Your task to perform on an android device: Open privacy settings Image 0: 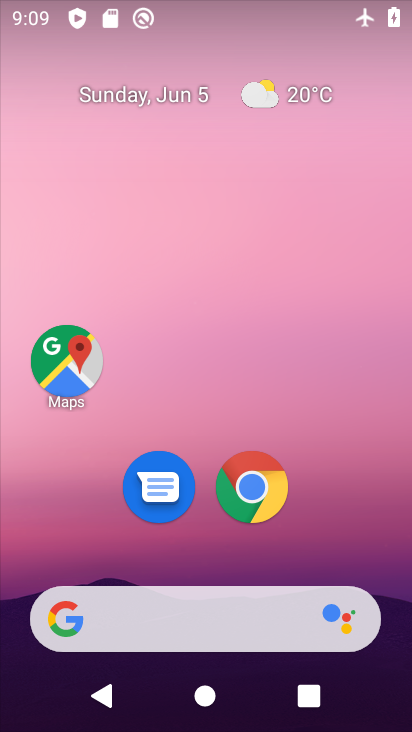
Step 0: drag from (213, 450) to (239, 301)
Your task to perform on an android device: Open privacy settings Image 1: 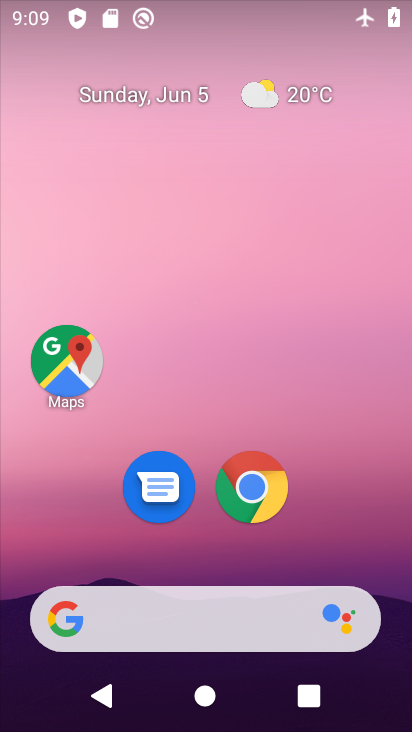
Step 1: drag from (212, 509) to (209, 306)
Your task to perform on an android device: Open privacy settings Image 2: 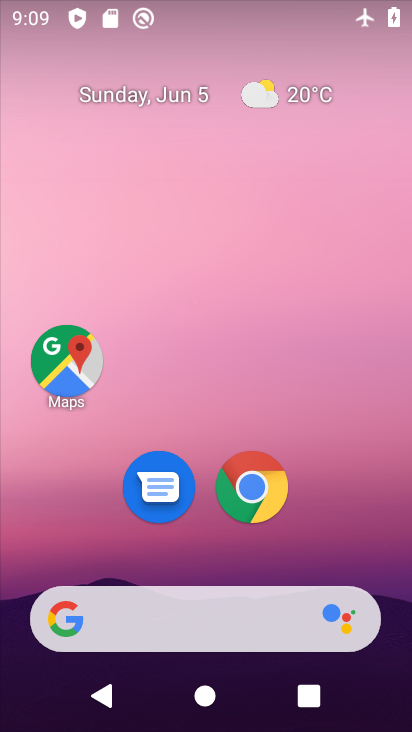
Step 2: drag from (245, 534) to (290, 184)
Your task to perform on an android device: Open privacy settings Image 3: 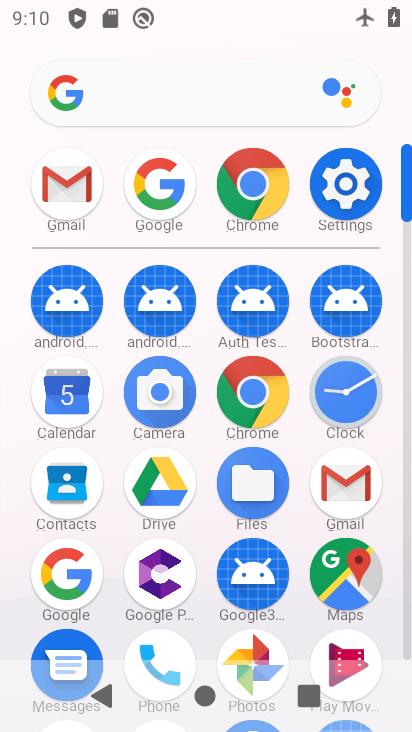
Step 3: click (356, 201)
Your task to perform on an android device: Open privacy settings Image 4: 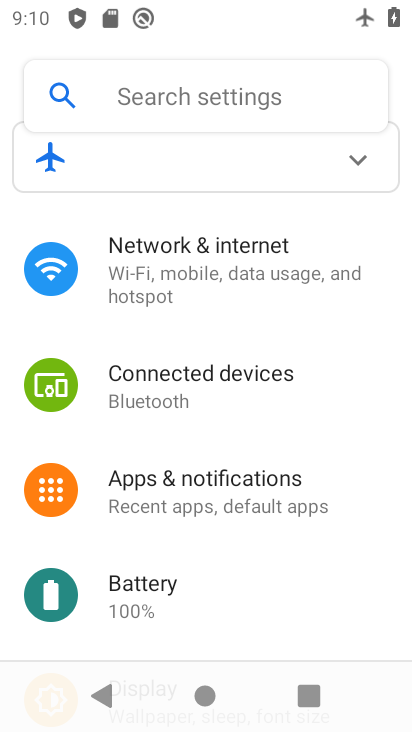
Step 4: drag from (202, 518) to (202, 397)
Your task to perform on an android device: Open privacy settings Image 5: 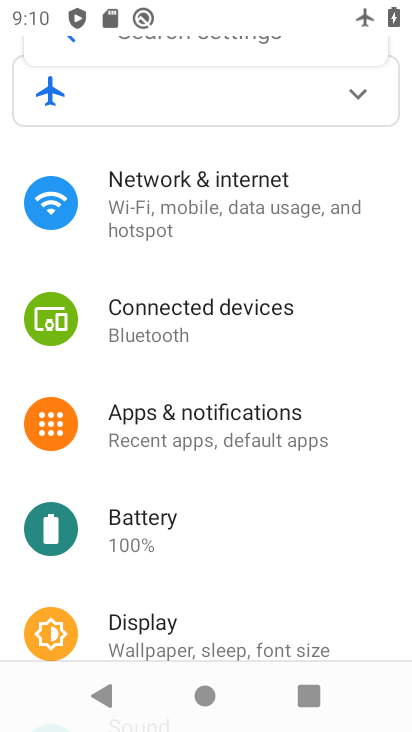
Step 5: click (156, 353)
Your task to perform on an android device: Open privacy settings Image 6: 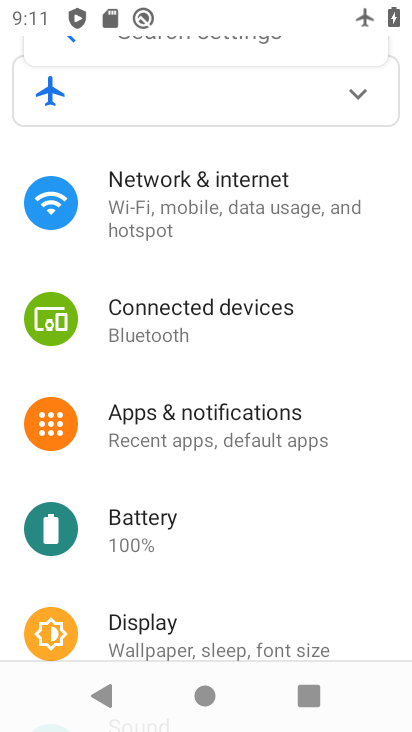
Step 6: drag from (210, 418) to (215, 330)
Your task to perform on an android device: Open privacy settings Image 7: 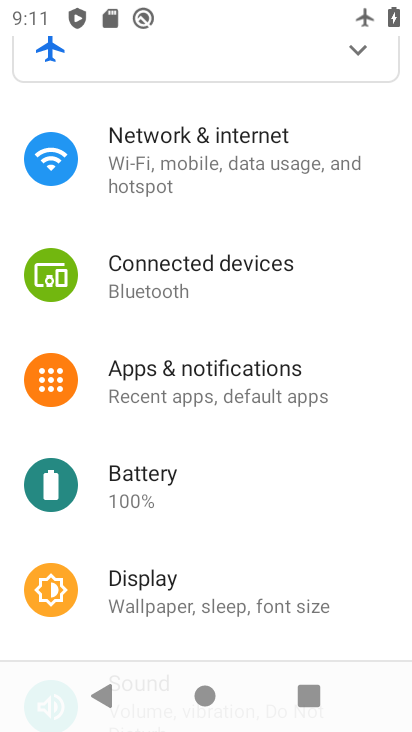
Step 7: drag from (206, 558) to (218, 251)
Your task to perform on an android device: Open privacy settings Image 8: 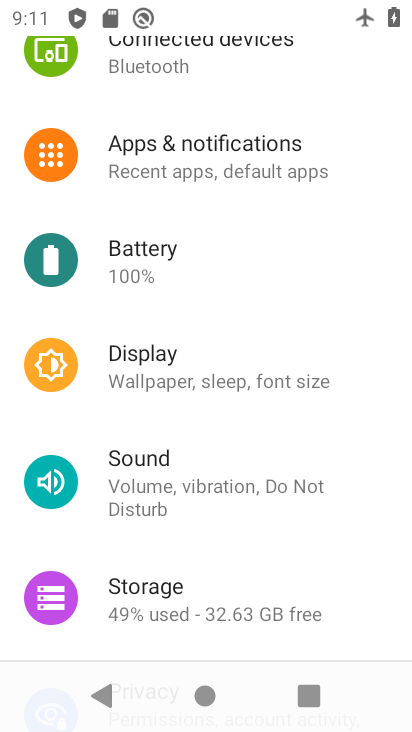
Step 8: drag from (208, 584) to (173, 118)
Your task to perform on an android device: Open privacy settings Image 9: 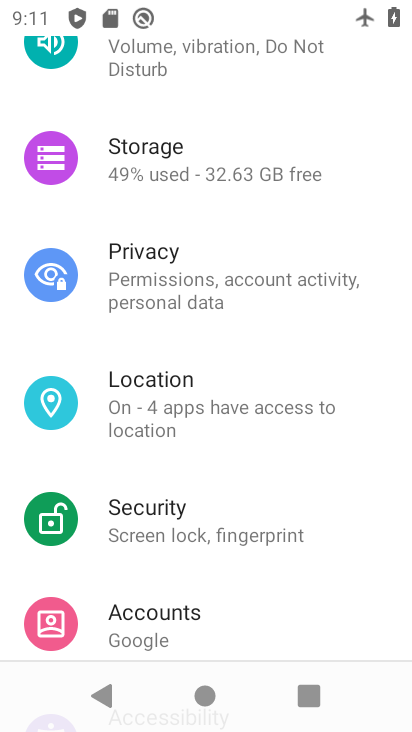
Step 9: click (236, 288)
Your task to perform on an android device: Open privacy settings Image 10: 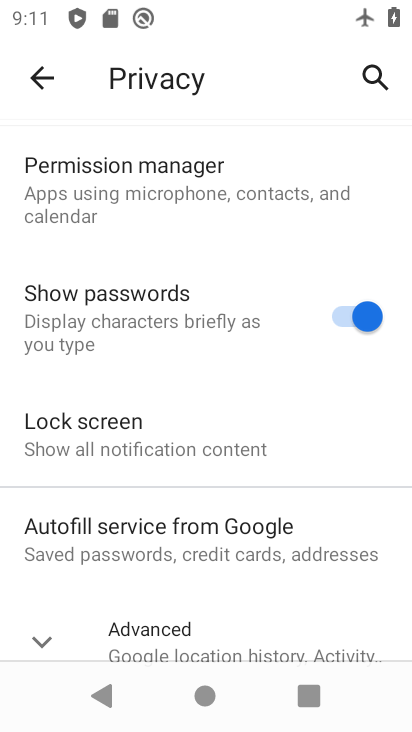
Step 10: task complete